Your task to perform on an android device: Go to wifi settings Image 0: 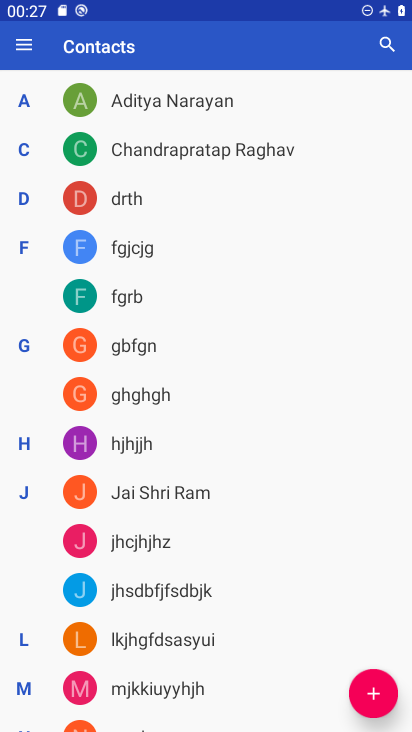
Step 0: press home button
Your task to perform on an android device: Go to wifi settings Image 1: 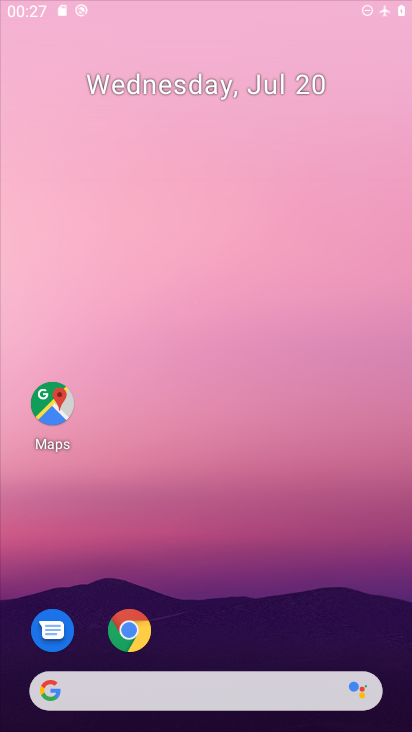
Step 1: press home button
Your task to perform on an android device: Go to wifi settings Image 2: 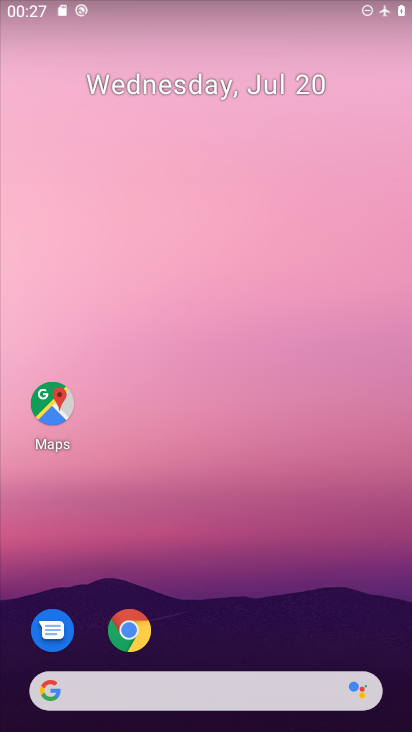
Step 2: drag from (238, 615) to (210, 127)
Your task to perform on an android device: Go to wifi settings Image 3: 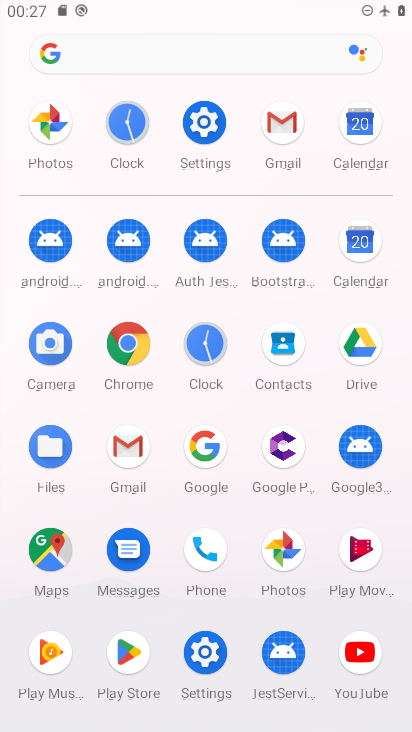
Step 3: click (210, 132)
Your task to perform on an android device: Go to wifi settings Image 4: 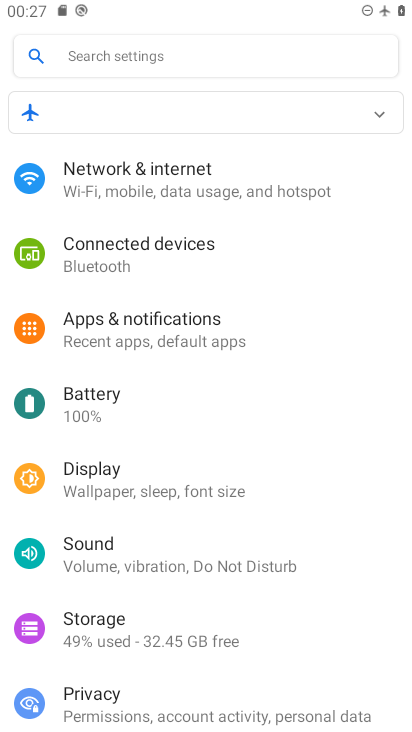
Step 4: click (205, 174)
Your task to perform on an android device: Go to wifi settings Image 5: 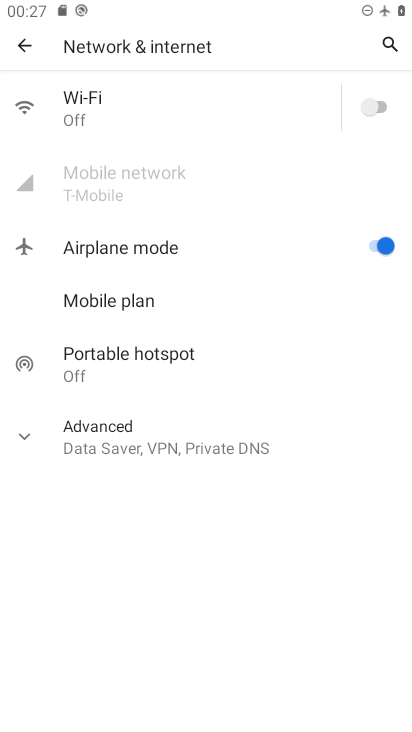
Step 5: click (134, 125)
Your task to perform on an android device: Go to wifi settings Image 6: 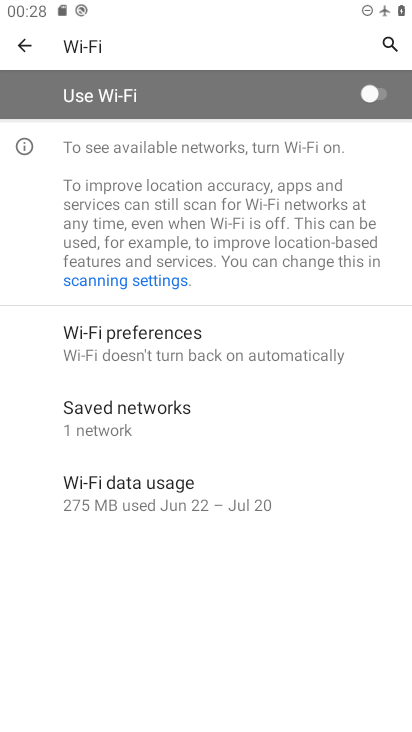
Step 6: task complete